Your task to perform on an android device: Open wifi settings Image 0: 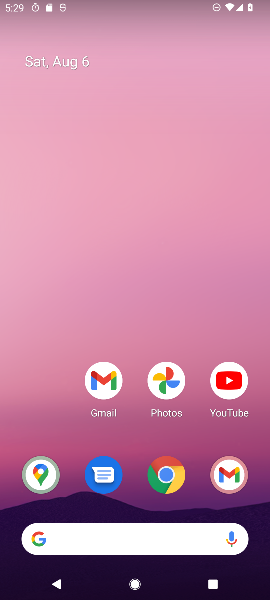
Step 0: drag from (88, 502) to (268, 50)
Your task to perform on an android device: Open wifi settings Image 1: 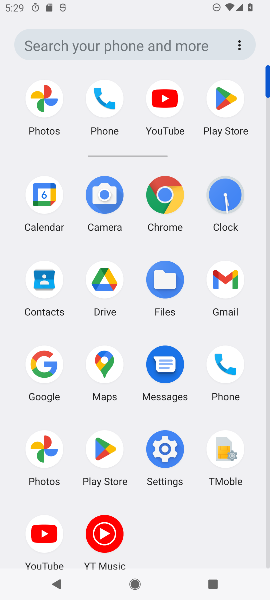
Step 1: click (159, 462)
Your task to perform on an android device: Open wifi settings Image 2: 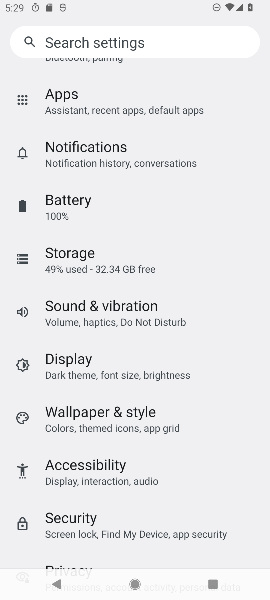
Step 2: drag from (218, 106) to (209, 518)
Your task to perform on an android device: Open wifi settings Image 3: 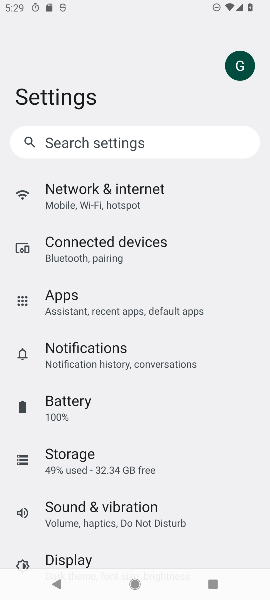
Step 3: click (91, 194)
Your task to perform on an android device: Open wifi settings Image 4: 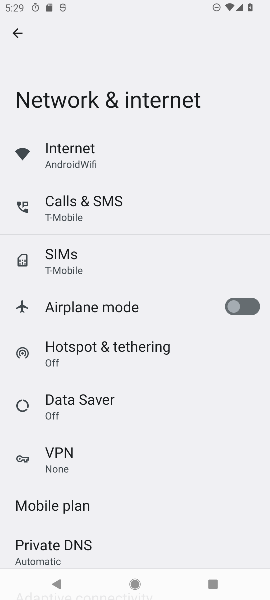
Step 4: click (73, 151)
Your task to perform on an android device: Open wifi settings Image 5: 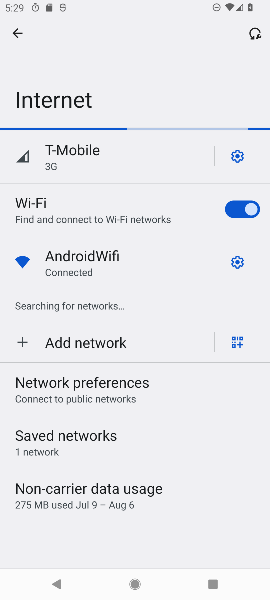
Step 5: task complete